Your task to perform on an android device: turn on improve location accuracy Image 0: 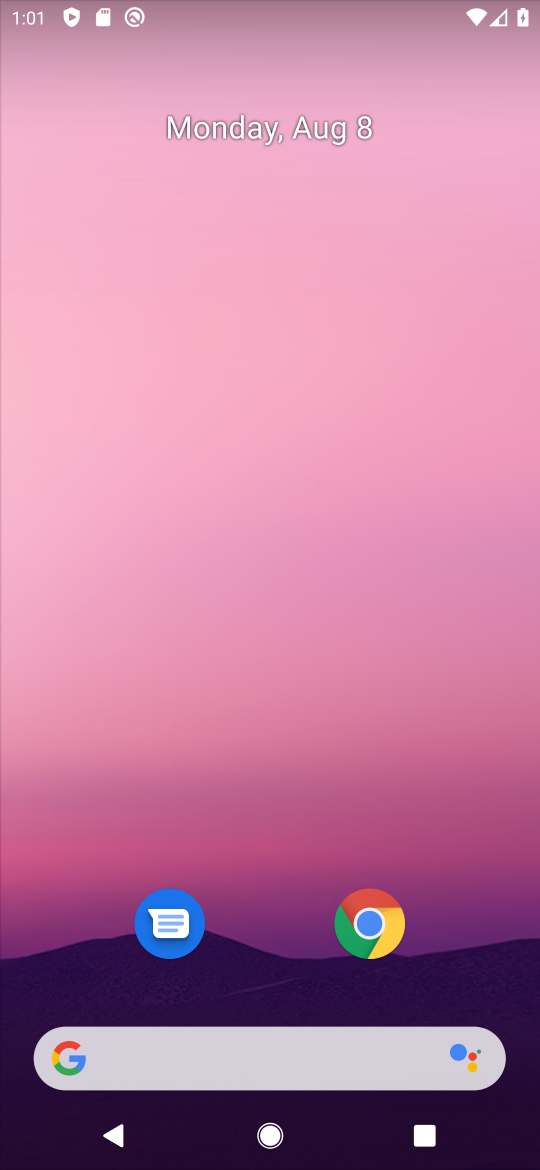
Step 0: drag from (298, 851) to (366, 159)
Your task to perform on an android device: turn on improve location accuracy Image 1: 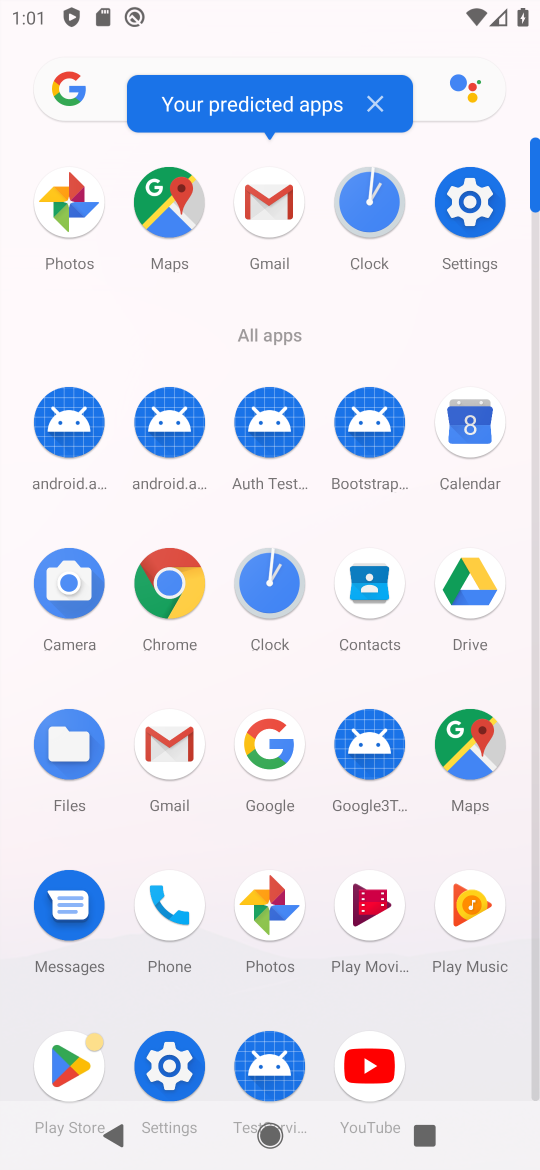
Step 1: click (466, 204)
Your task to perform on an android device: turn on improve location accuracy Image 2: 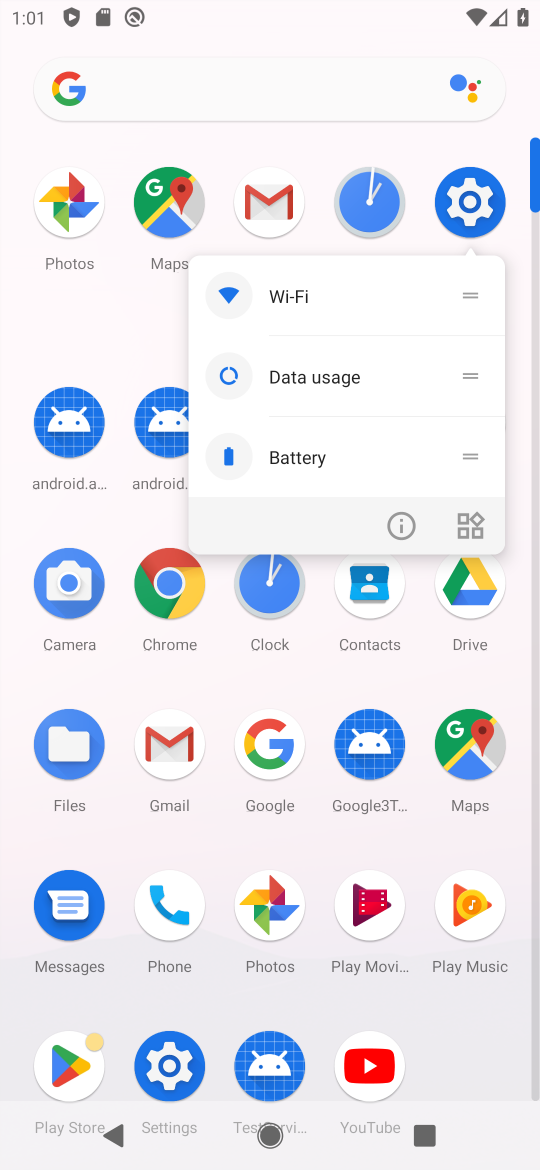
Step 2: click (462, 218)
Your task to perform on an android device: turn on improve location accuracy Image 3: 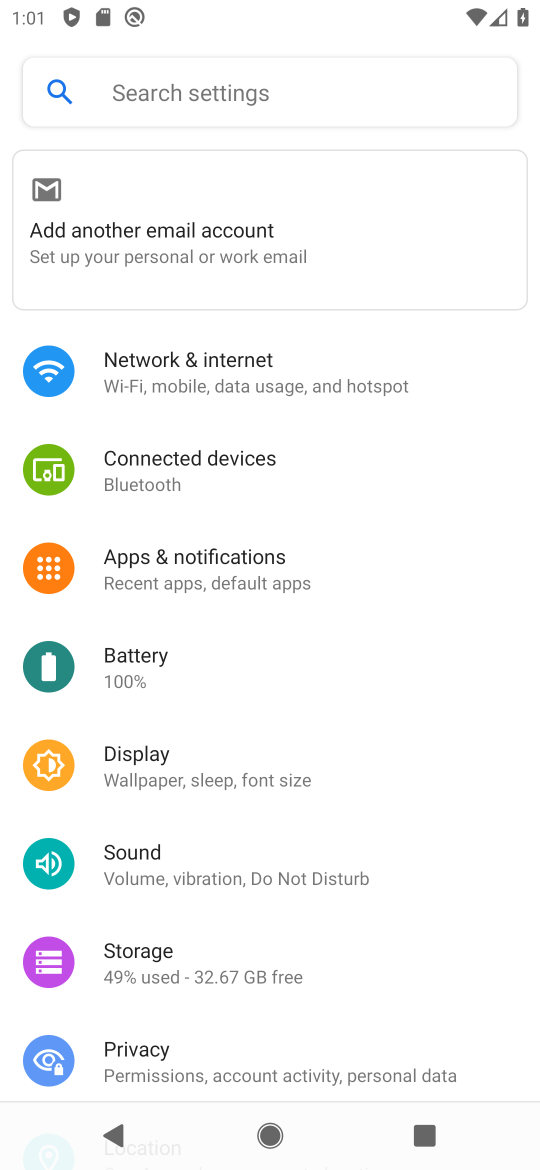
Step 3: drag from (187, 962) to (161, 420)
Your task to perform on an android device: turn on improve location accuracy Image 4: 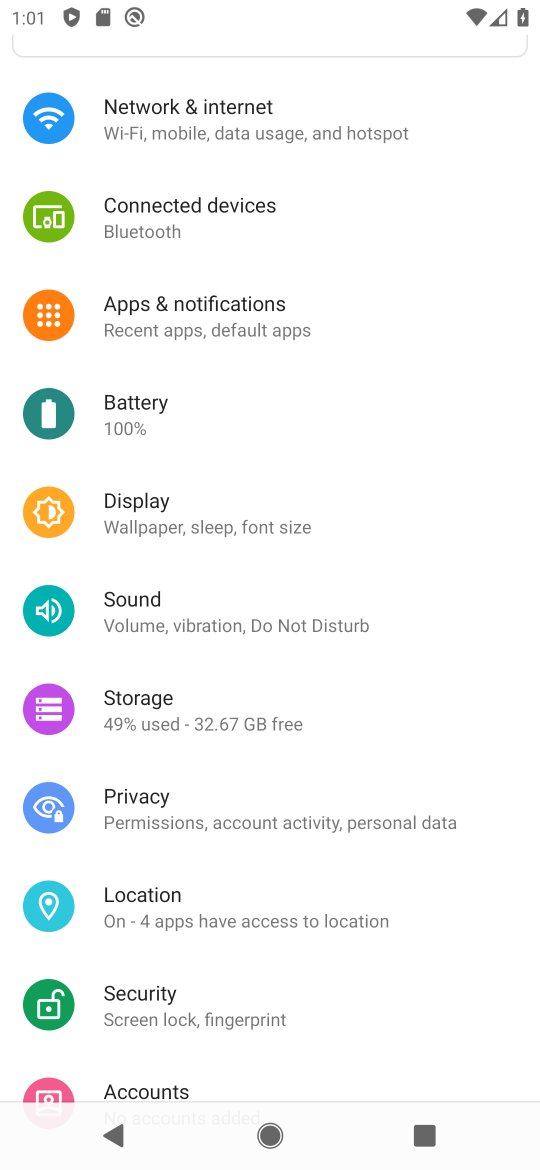
Step 4: drag from (162, 981) to (182, 227)
Your task to perform on an android device: turn on improve location accuracy Image 5: 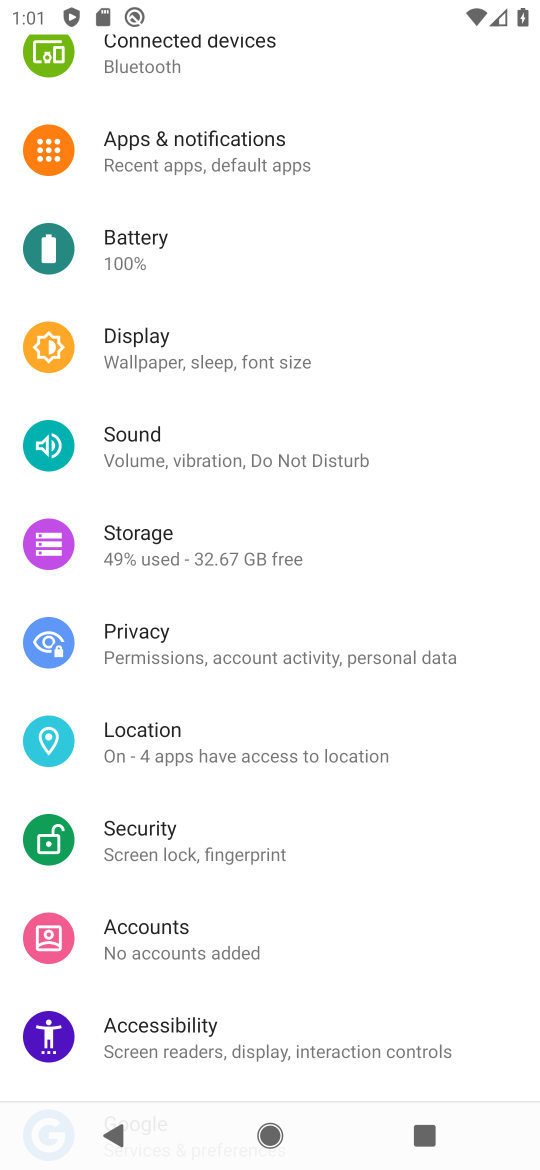
Step 5: click (173, 765)
Your task to perform on an android device: turn on improve location accuracy Image 6: 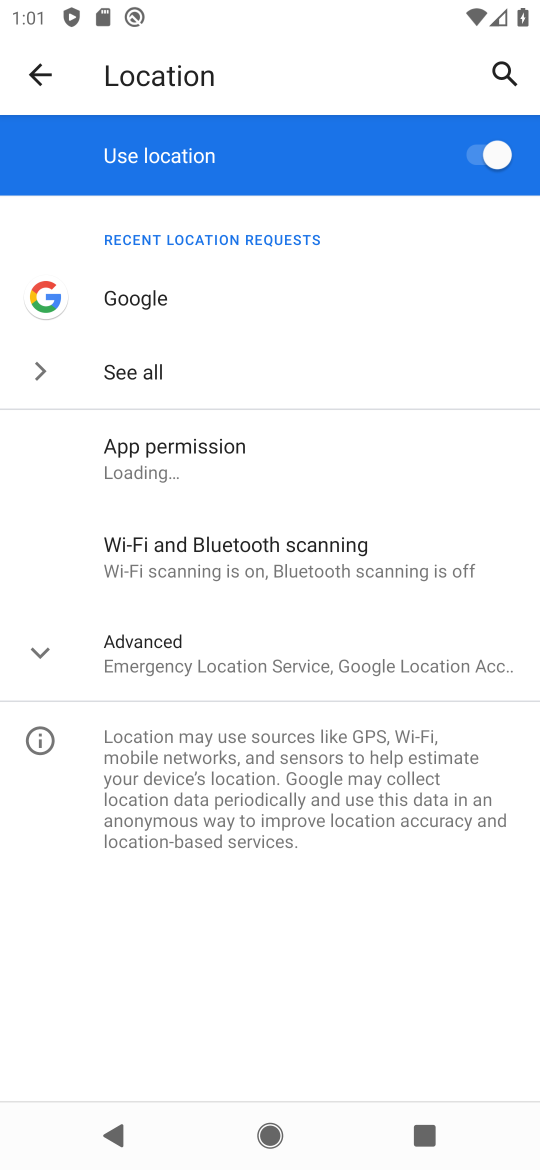
Step 6: task complete